Your task to perform on an android device: turn on the 12-hour format for clock Image 0: 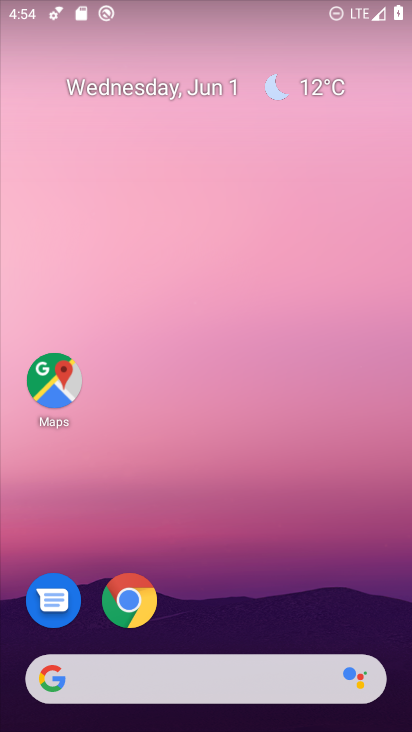
Step 0: drag from (403, 620) to (304, 42)
Your task to perform on an android device: turn on the 12-hour format for clock Image 1: 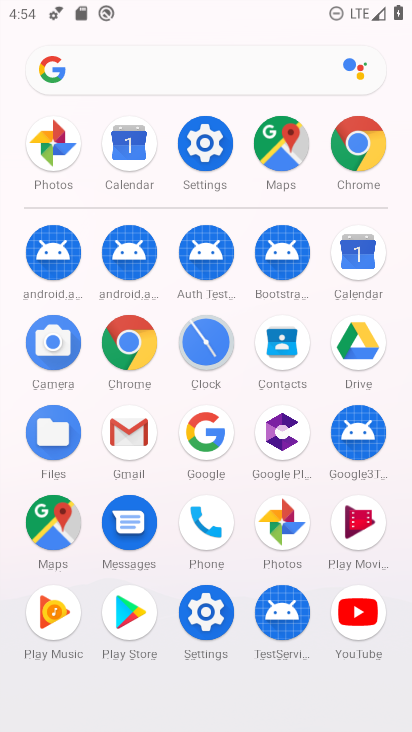
Step 1: click (205, 341)
Your task to perform on an android device: turn on the 12-hour format for clock Image 2: 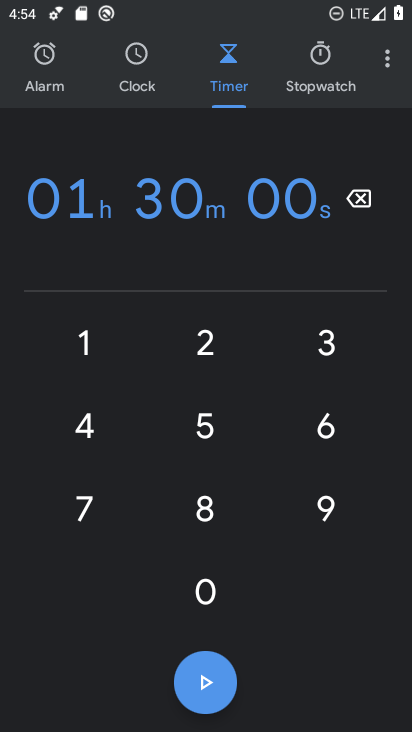
Step 2: click (387, 67)
Your task to perform on an android device: turn on the 12-hour format for clock Image 3: 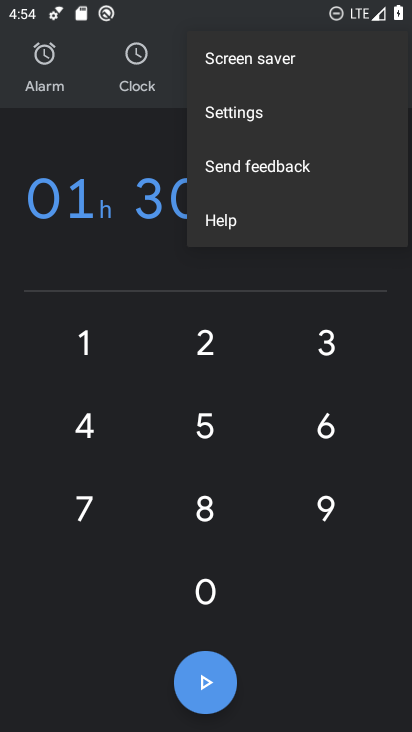
Step 3: click (251, 117)
Your task to perform on an android device: turn on the 12-hour format for clock Image 4: 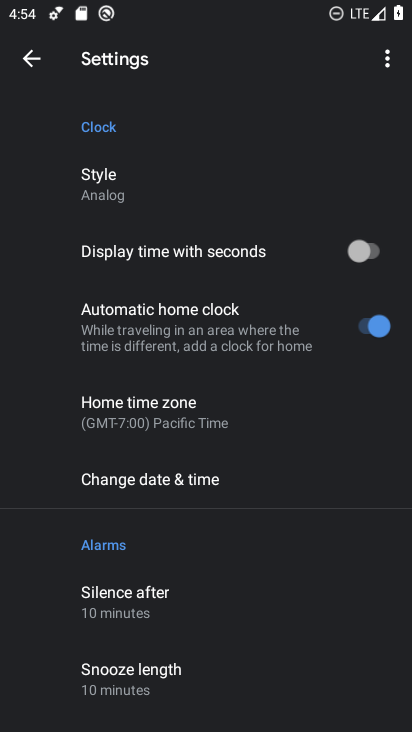
Step 4: click (196, 485)
Your task to perform on an android device: turn on the 12-hour format for clock Image 5: 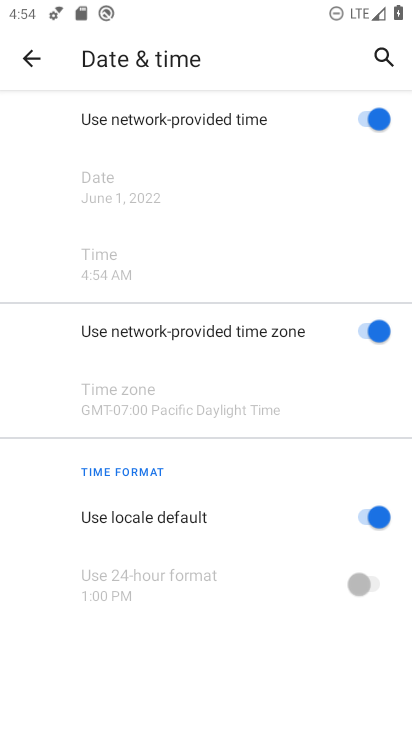
Step 5: task complete